Your task to perform on an android device: Search for Mexican restaurants on Maps Image 0: 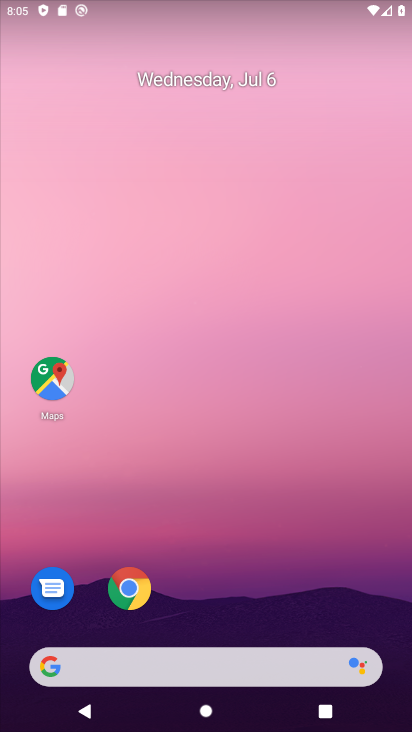
Step 0: drag from (301, 602) to (284, 141)
Your task to perform on an android device: Search for Mexican restaurants on Maps Image 1: 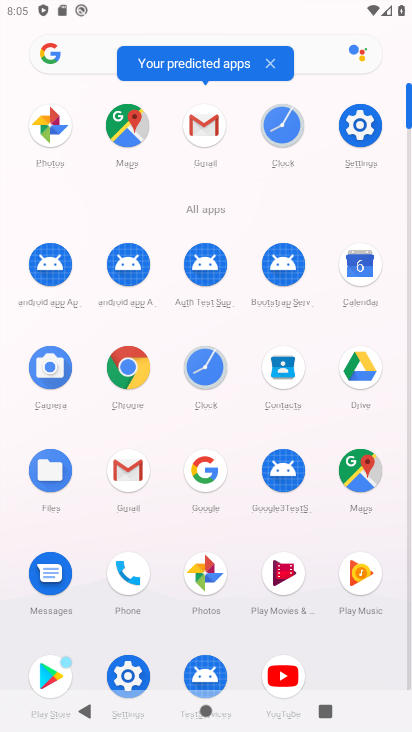
Step 1: click (346, 468)
Your task to perform on an android device: Search for Mexican restaurants on Maps Image 2: 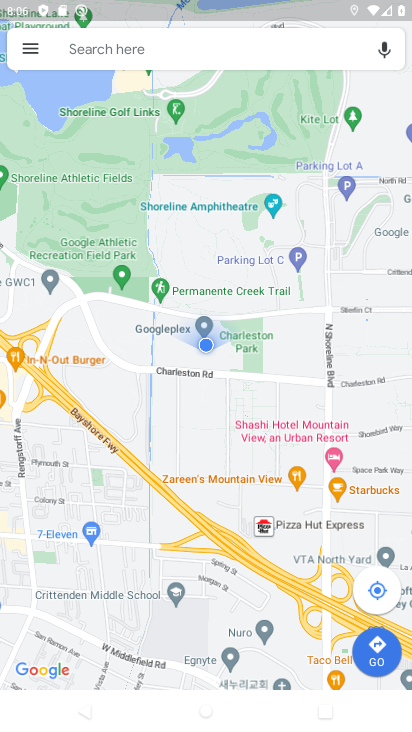
Step 2: click (245, 35)
Your task to perform on an android device: Search for Mexican restaurants on Maps Image 3: 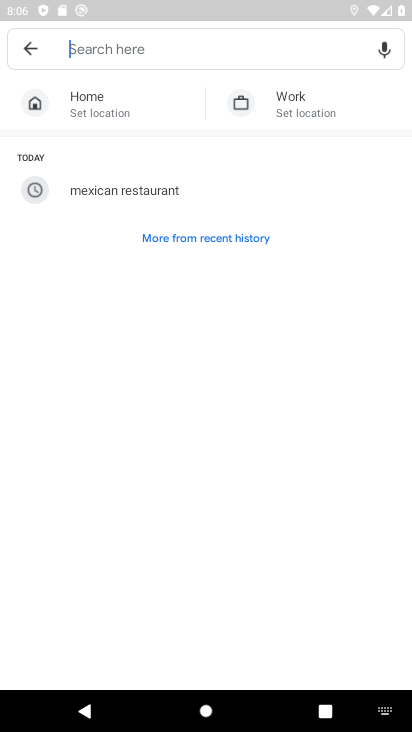
Step 3: type "r Mexican restaurants  "
Your task to perform on an android device: Search for Mexican restaurants on Maps Image 4: 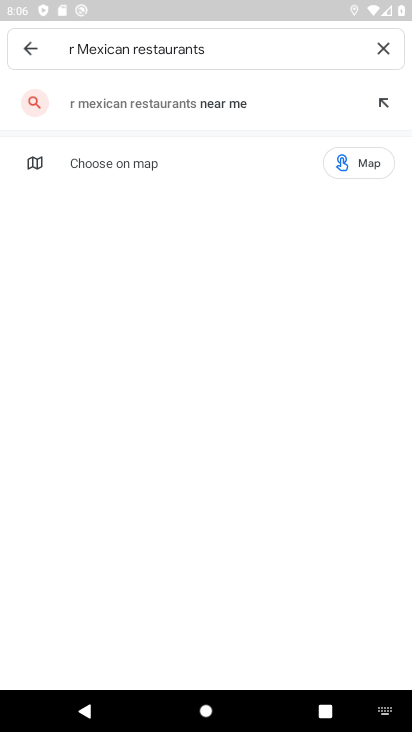
Step 4: task complete